Your task to perform on an android device: Open Google Maps and go to "Timeline" Image 0: 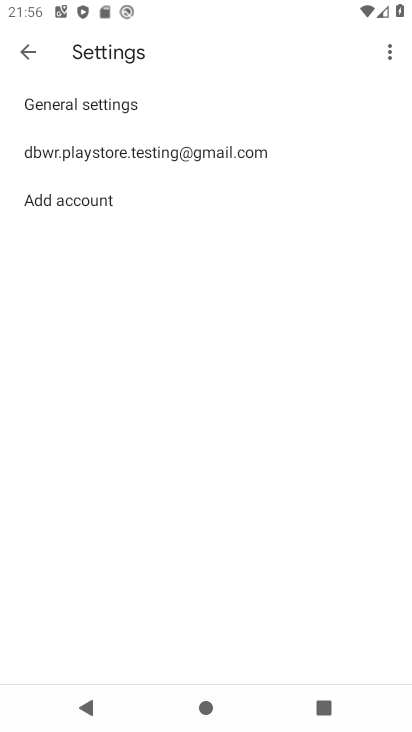
Step 0: press home button
Your task to perform on an android device: Open Google Maps and go to "Timeline" Image 1: 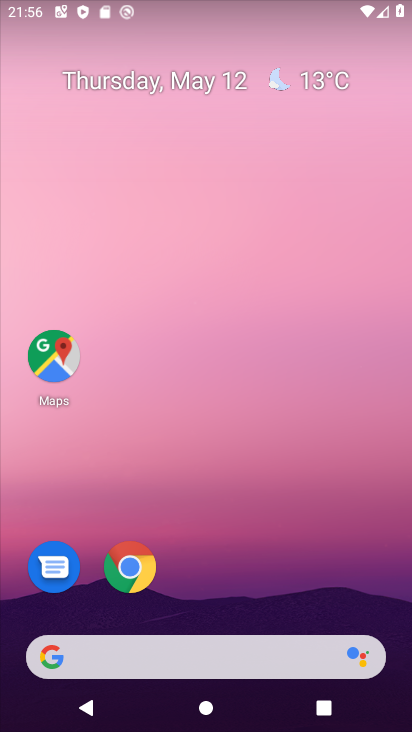
Step 1: click (53, 354)
Your task to perform on an android device: Open Google Maps and go to "Timeline" Image 2: 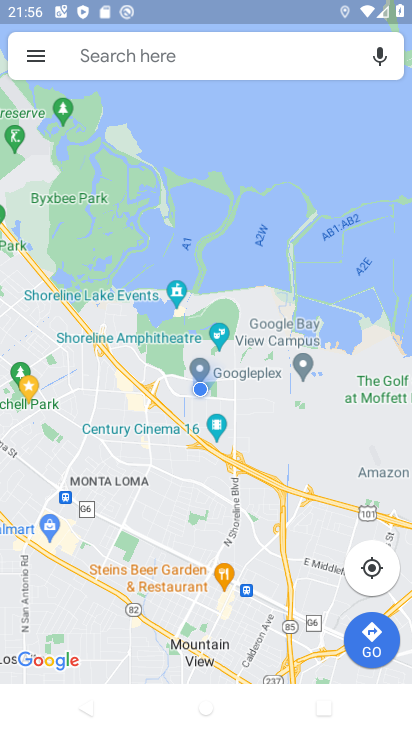
Step 2: click (26, 49)
Your task to perform on an android device: Open Google Maps and go to "Timeline" Image 3: 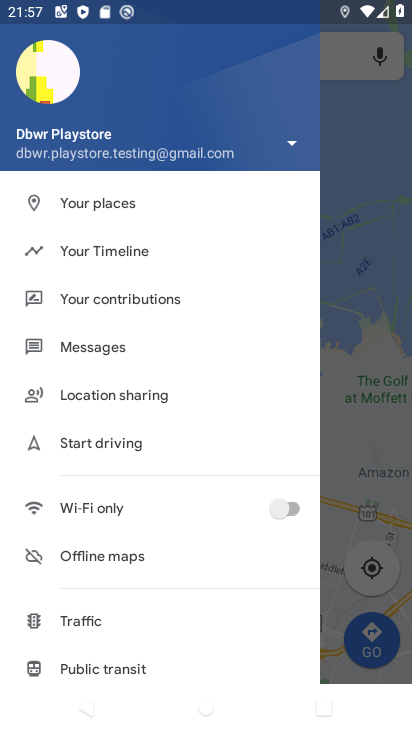
Step 3: click (42, 247)
Your task to perform on an android device: Open Google Maps and go to "Timeline" Image 4: 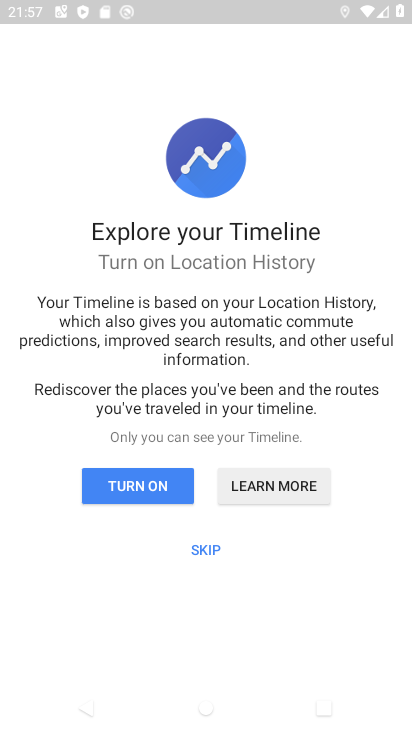
Step 4: click (135, 486)
Your task to perform on an android device: Open Google Maps and go to "Timeline" Image 5: 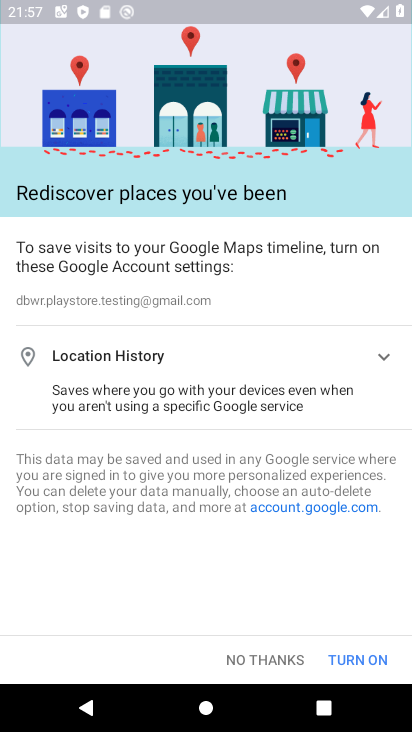
Step 5: click (361, 660)
Your task to perform on an android device: Open Google Maps and go to "Timeline" Image 6: 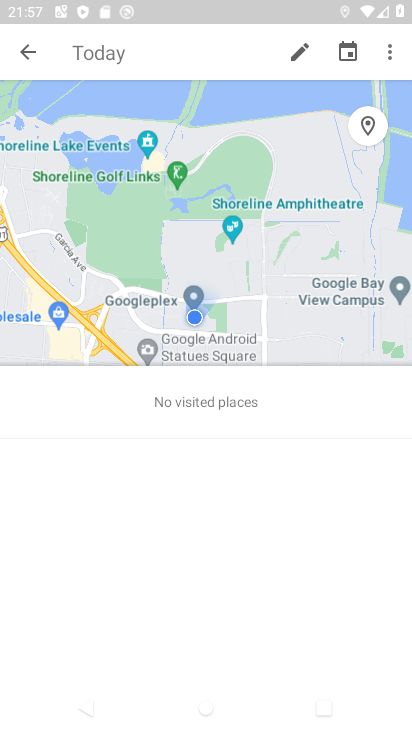
Step 6: task complete